Your task to perform on an android device: Open Reddit.com Image 0: 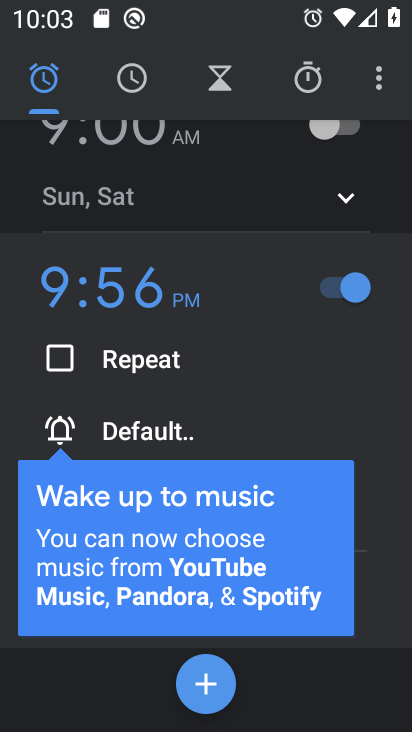
Step 0: press home button
Your task to perform on an android device: Open Reddit.com Image 1: 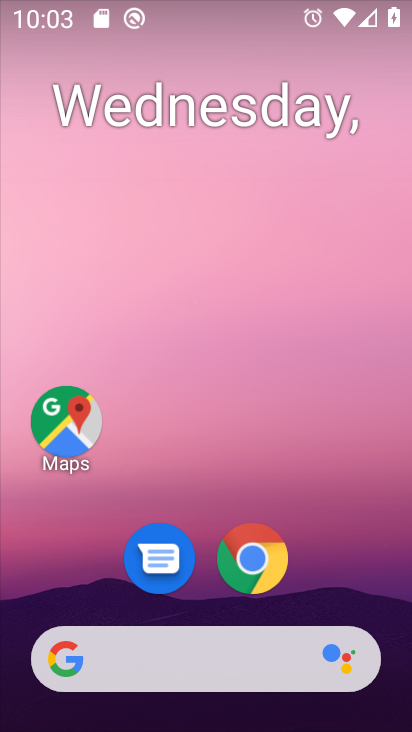
Step 1: drag from (354, 584) to (381, 110)
Your task to perform on an android device: Open Reddit.com Image 2: 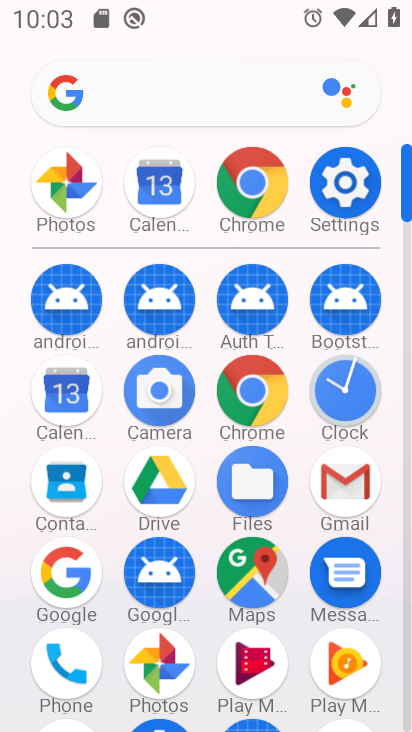
Step 2: click (265, 391)
Your task to perform on an android device: Open Reddit.com Image 3: 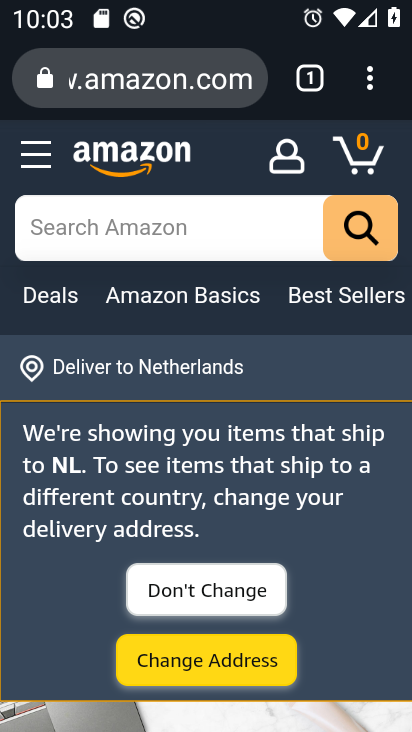
Step 3: click (196, 97)
Your task to perform on an android device: Open Reddit.com Image 4: 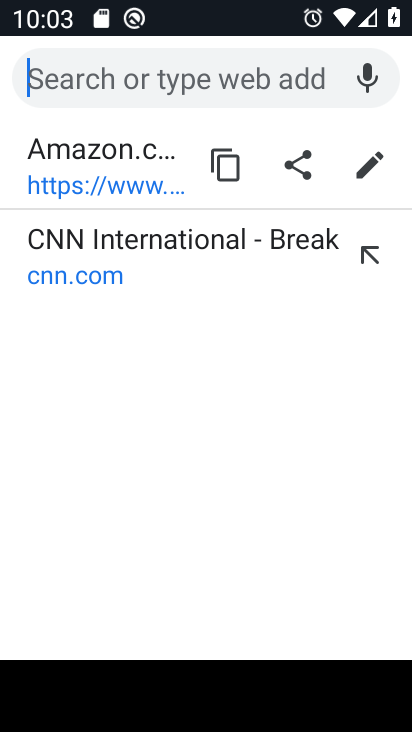
Step 4: type "reddit.com"
Your task to perform on an android device: Open Reddit.com Image 5: 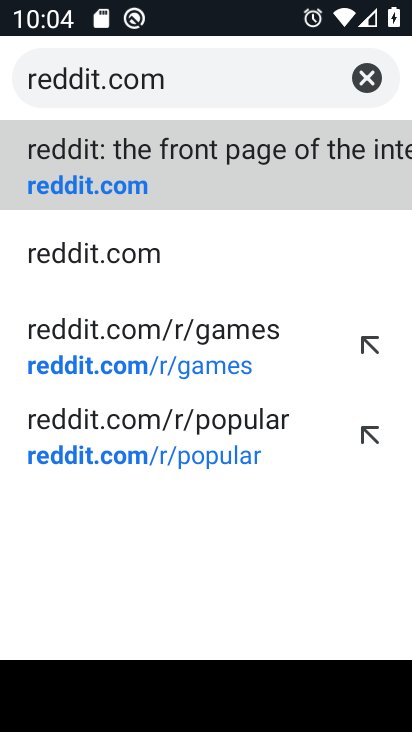
Step 5: click (248, 188)
Your task to perform on an android device: Open Reddit.com Image 6: 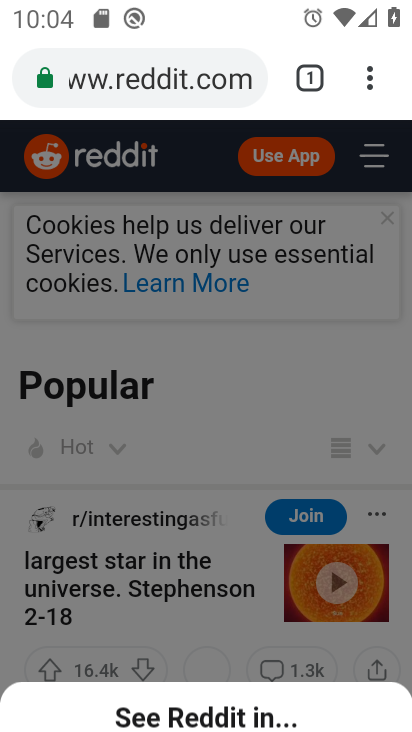
Step 6: task complete